Your task to perform on an android device: What's the weather? Image 0: 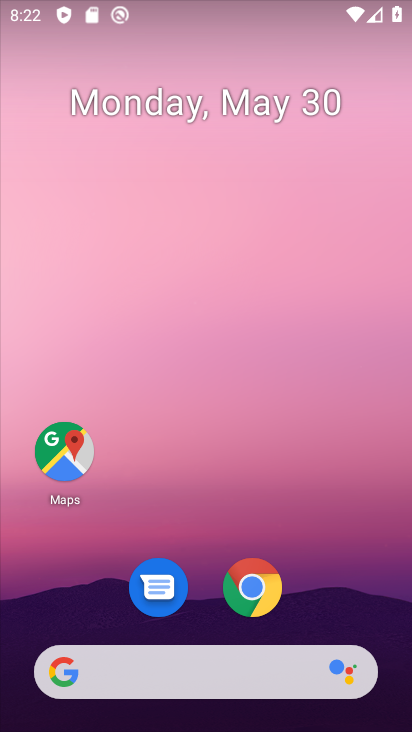
Step 0: click (234, 673)
Your task to perform on an android device: What's the weather? Image 1: 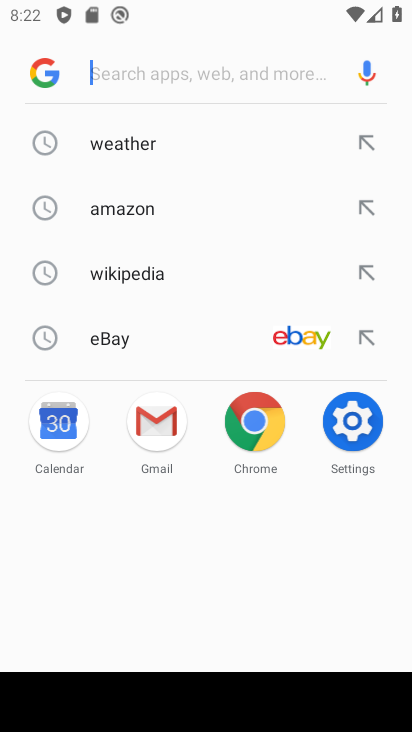
Step 1: type "What's the weather?"
Your task to perform on an android device: What's the weather? Image 2: 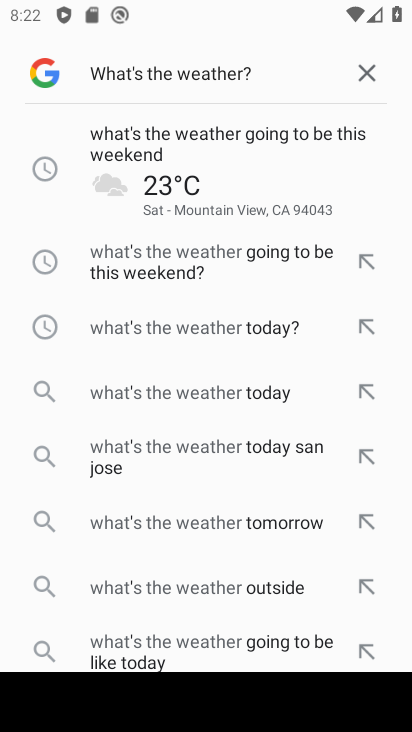
Step 2: click (179, 158)
Your task to perform on an android device: What's the weather? Image 3: 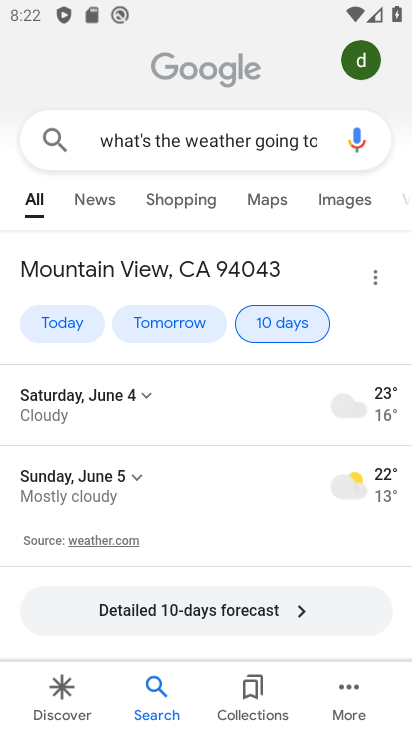
Step 3: task complete